Your task to perform on an android device: turn off notifications in google photos Image 0: 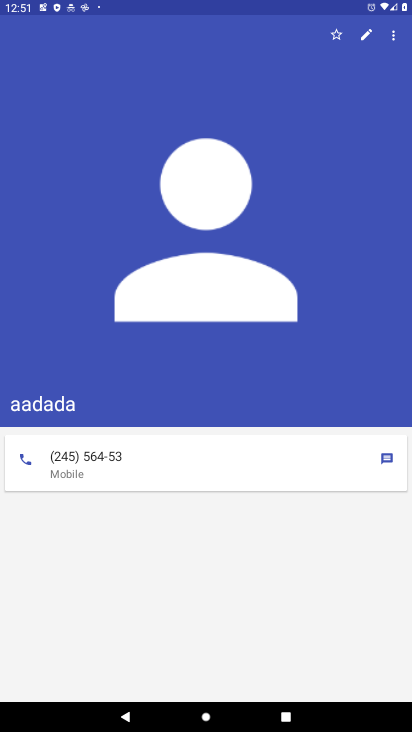
Step 0: press home button
Your task to perform on an android device: turn off notifications in google photos Image 1: 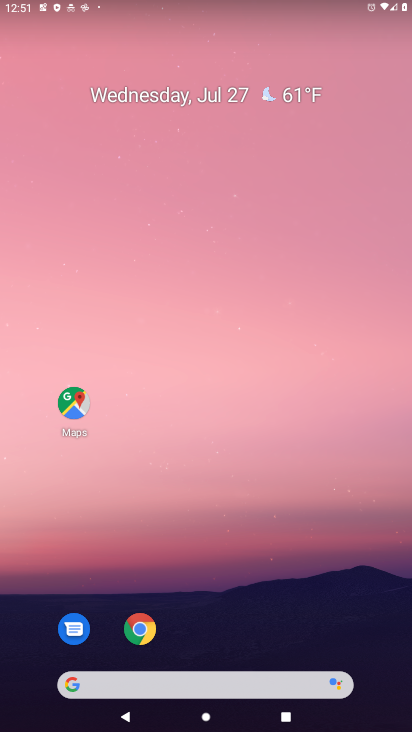
Step 1: drag from (217, 618) to (188, 232)
Your task to perform on an android device: turn off notifications in google photos Image 2: 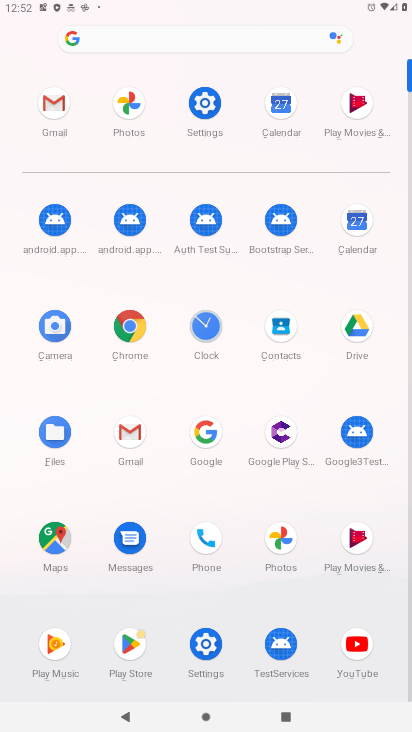
Step 2: click (129, 127)
Your task to perform on an android device: turn off notifications in google photos Image 3: 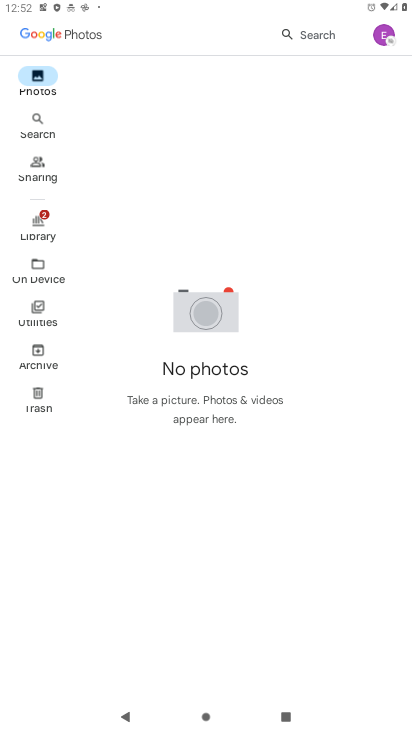
Step 3: task complete